Your task to perform on an android device: turn off improve location accuracy Image 0: 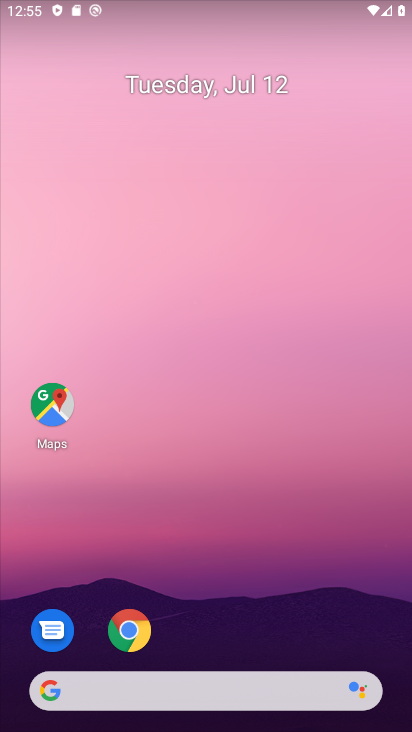
Step 0: drag from (324, 617) to (236, 14)
Your task to perform on an android device: turn off improve location accuracy Image 1: 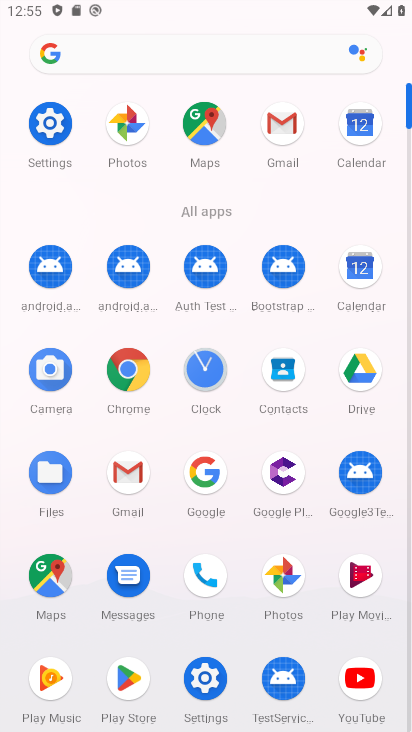
Step 1: click (205, 684)
Your task to perform on an android device: turn off improve location accuracy Image 2: 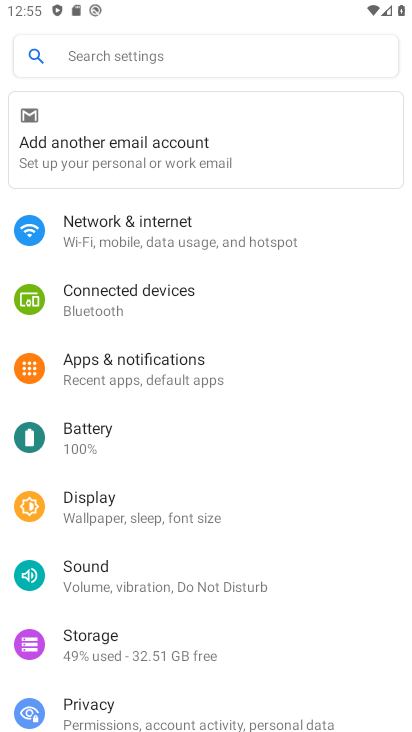
Step 2: drag from (284, 604) to (244, 301)
Your task to perform on an android device: turn off improve location accuracy Image 3: 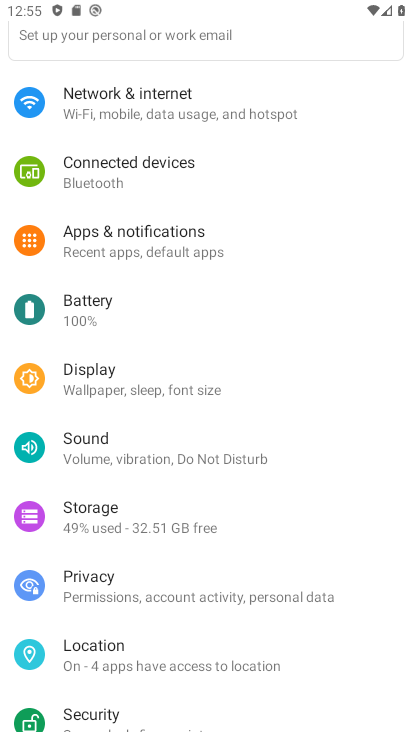
Step 3: click (116, 643)
Your task to perform on an android device: turn off improve location accuracy Image 4: 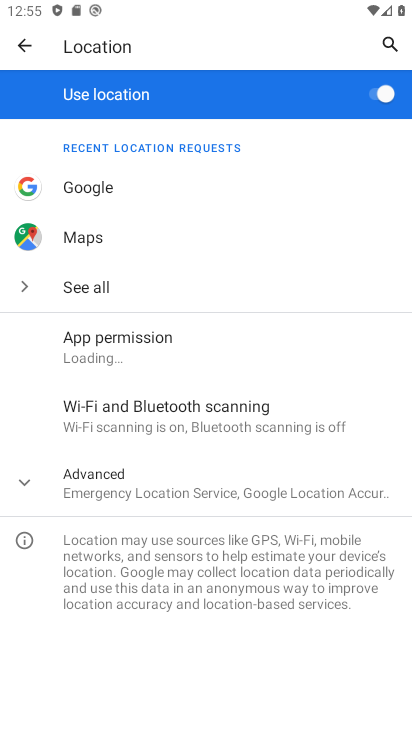
Step 4: click (28, 485)
Your task to perform on an android device: turn off improve location accuracy Image 5: 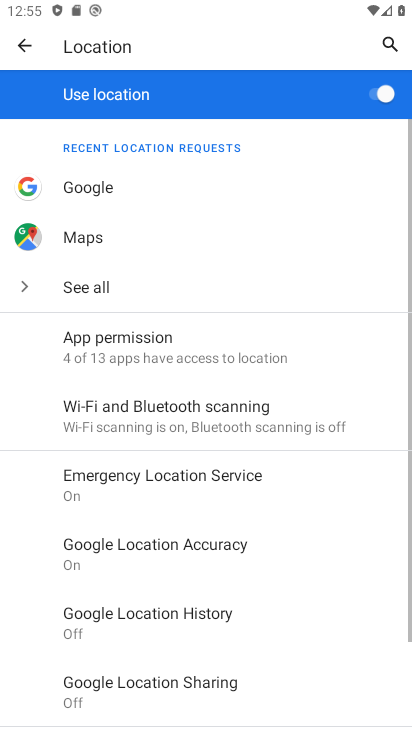
Step 5: click (175, 542)
Your task to perform on an android device: turn off improve location accuracy Image 6: 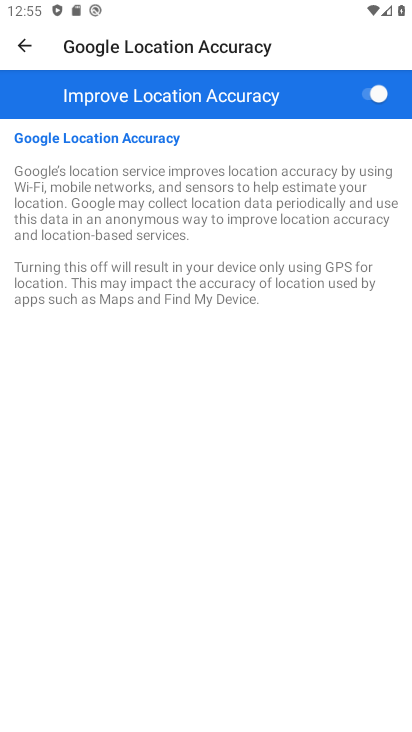
Step 6: click (368, 97)
Your task to perform on an android device: turn off improve location accuracy Image 7: 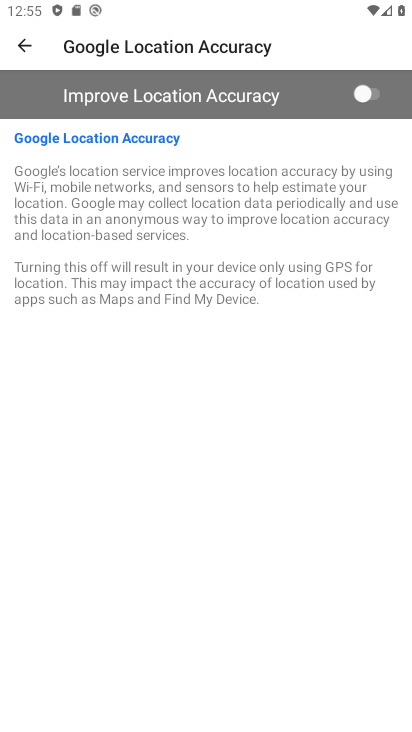
Step 7: task complete